Your task to perform on an android device: Open Maps and search for coffee Image 0: 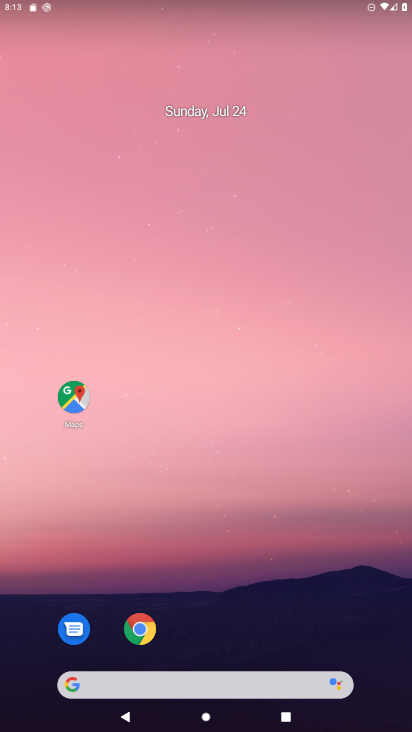
Step 0: drag from (377, 643) to (140, 4)
Your task to perform on an android device: Open Maps and search for coffee Image 1: 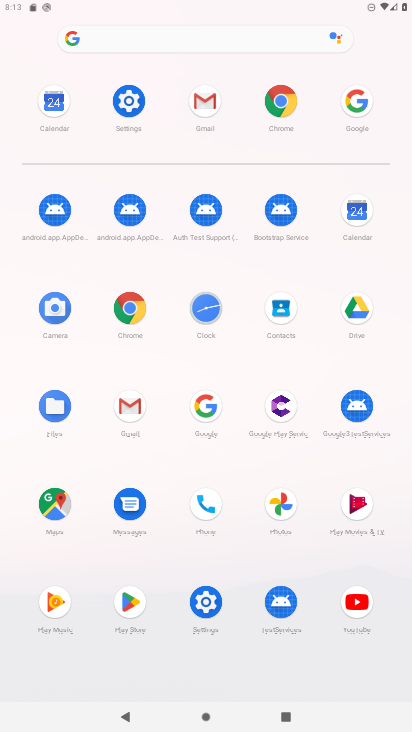
Step 1: click (52, 504)
Your task to perform on an android device: Open Maps and search for coffee Image 2: 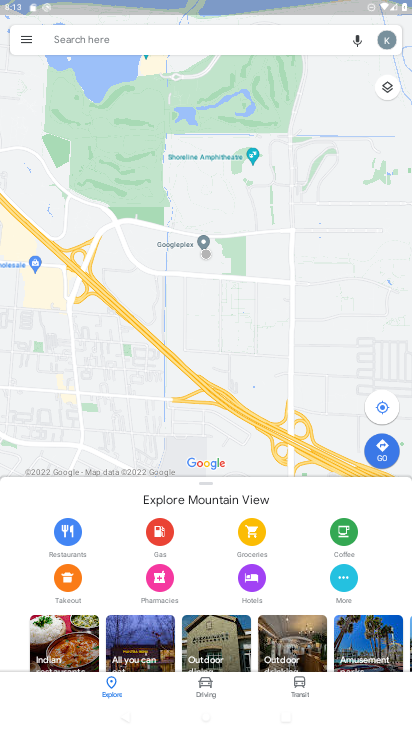
Step 2: click (94, 46)
Your task to perform on an android device: Open Maps and search for coffee Image 3: 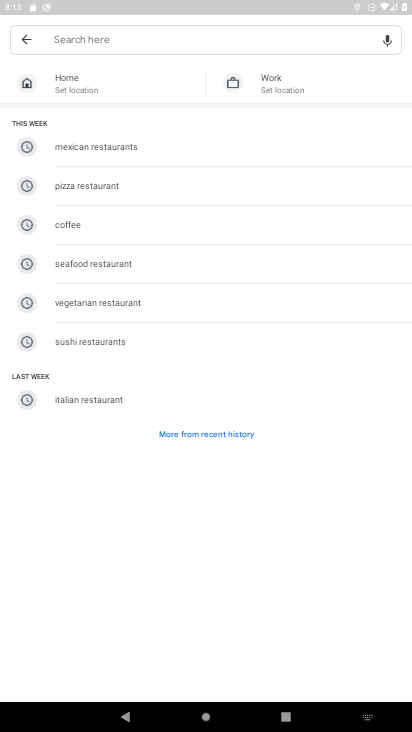
Step 3: click (78, 226)
Your task to perform on an android device: Open Maps and search for coffee Image 4: 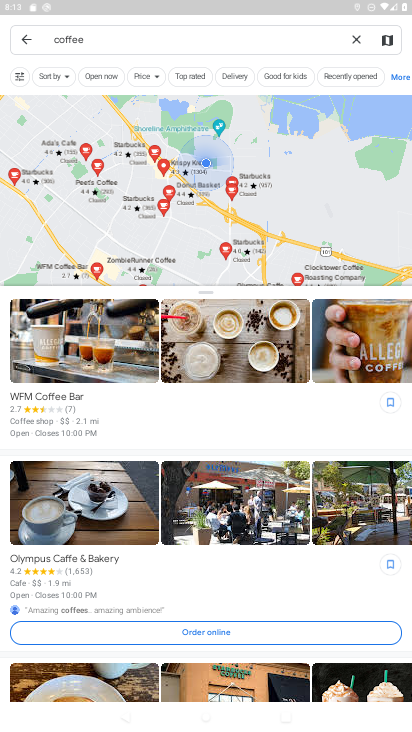
Step 4: task complete